Your task to perform on an android device: Do I have any events tomorrow? Image 0: 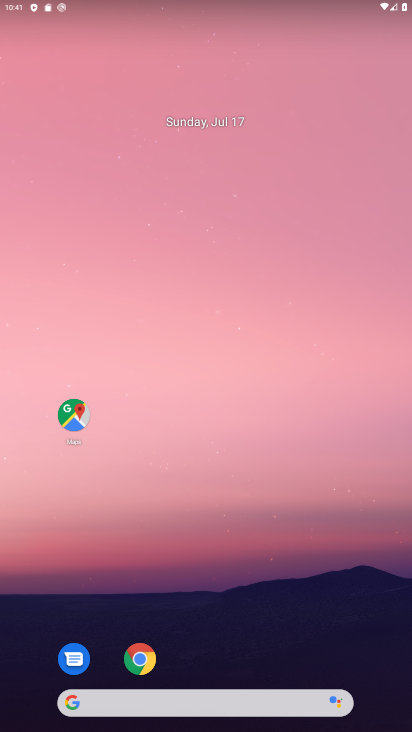
Step 0: drag from (216, 383) to (153, 143)
Your task to perform on an android device: Do I have any events tomorrow? Image 1: 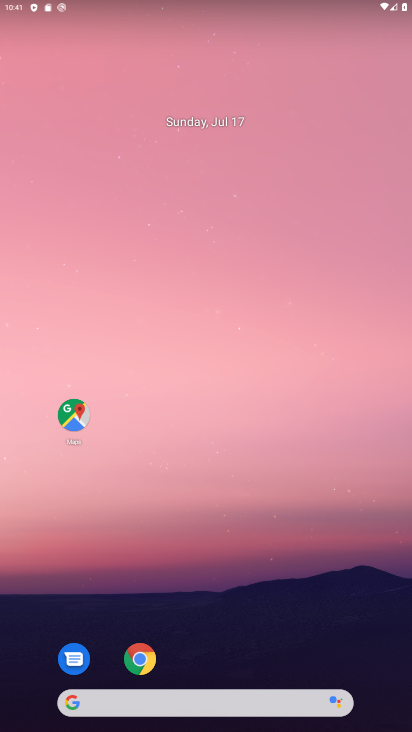
Step 1: drag from (246, 573) to (206, 141)
Your task to perform on an android device: Do I have any events tomorrow? Image 2: 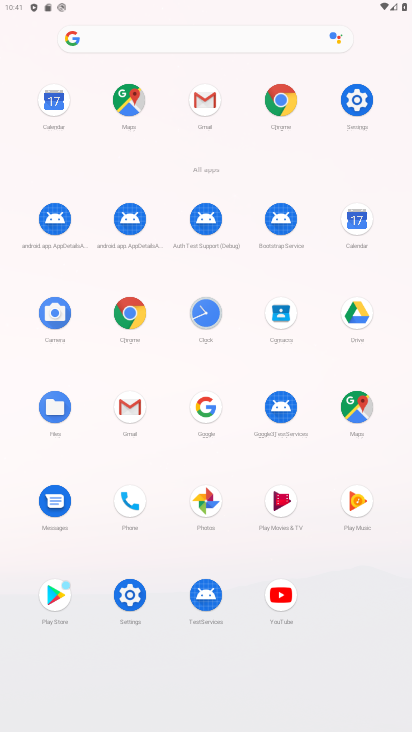
Step 2: click (357, 218)
Your task to perform on an android device: Do I have any events tomorrow? Image 3: 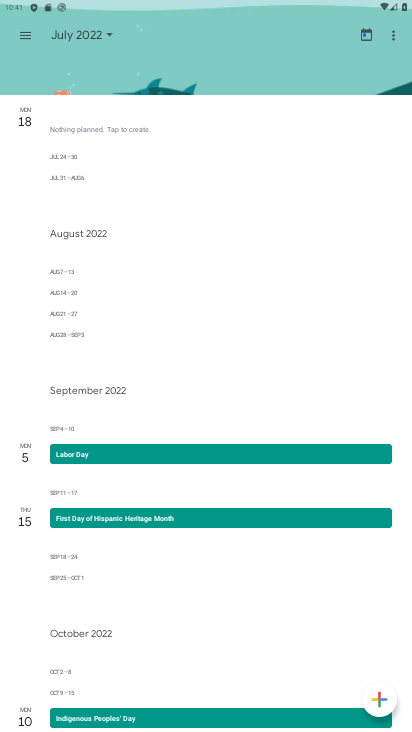
Step 3: task complete